Your task to perform on an android device: turn off data saver in the chrome app Image 0: 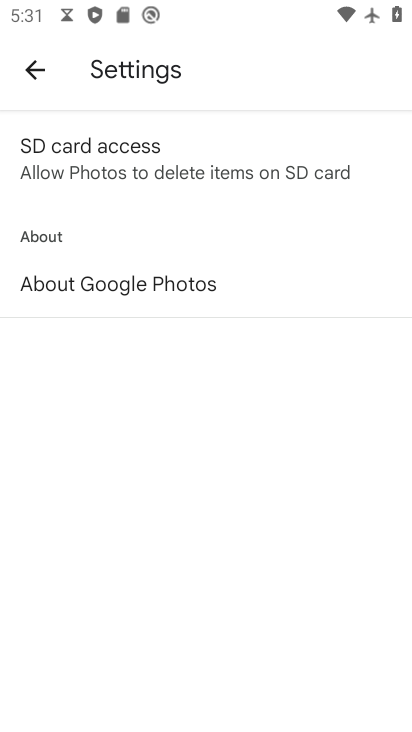
Step 0: press home button
Your task to perform on an android device: turn off data saver in the chrome app Image 1: 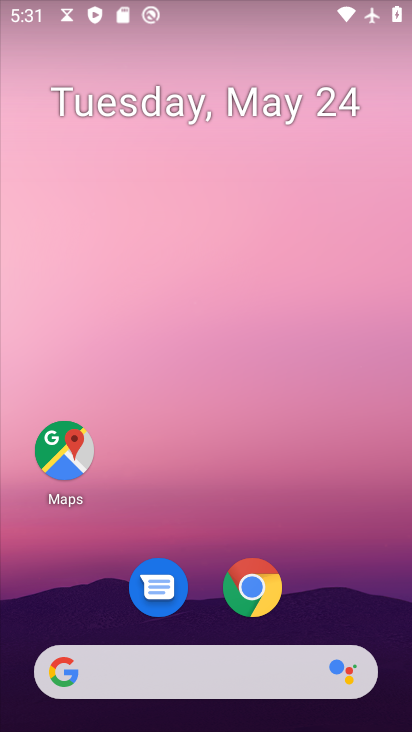
Step 1: click (272, 595)
Your task to perform on an android device: turn off data saver in the chrome app Image 2: 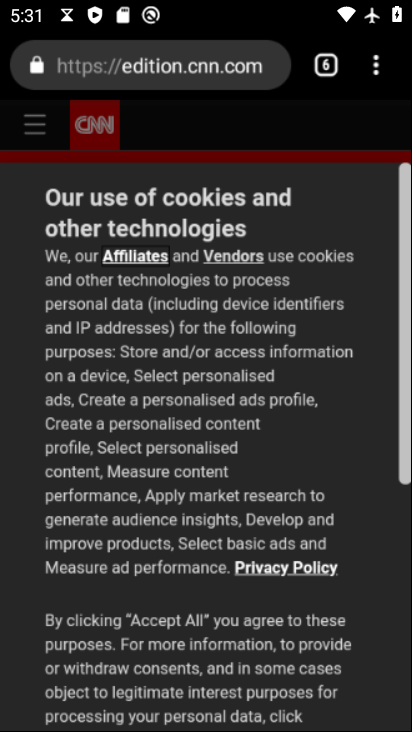
Step 2: click (382, 77)
Your task to perform on an android device: turn off data saver in the chrome app Image 3: 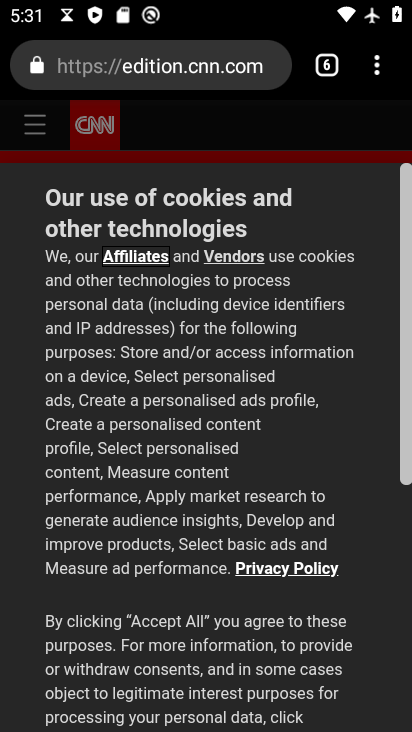
Step 3: click (369, 62)
Your task to perform on an android device: turn off data saver in the chrome app Image 4: 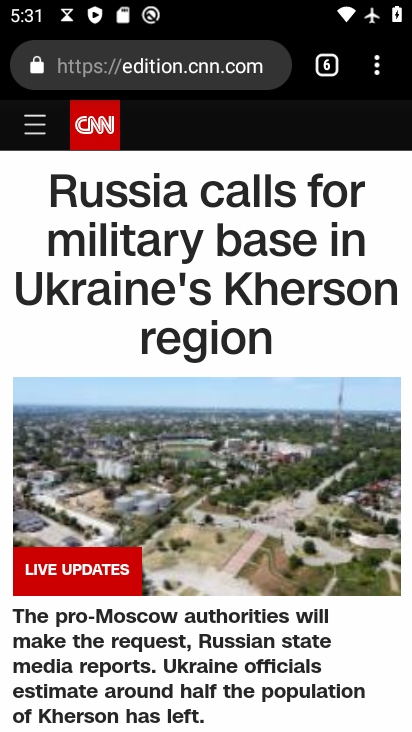
Step 4: click (368, 65)
Your task to perform on an android device: turn off data saver in the chrome app Image 5: 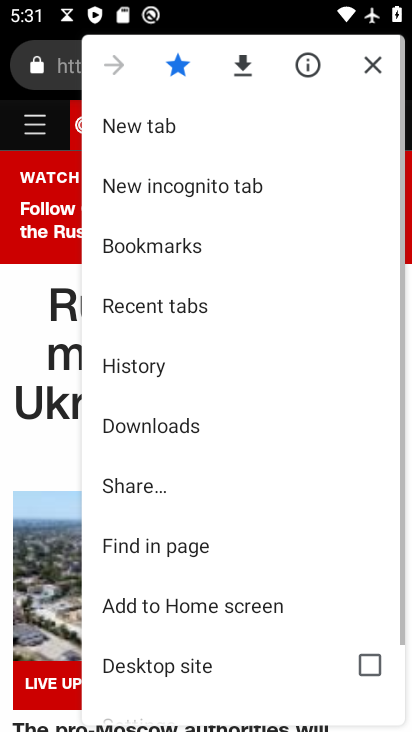
Step 5: drag from (253, 595) to (267, 85)
Your task to perform on an android device: turn off data saver in the chrome app Image 6: 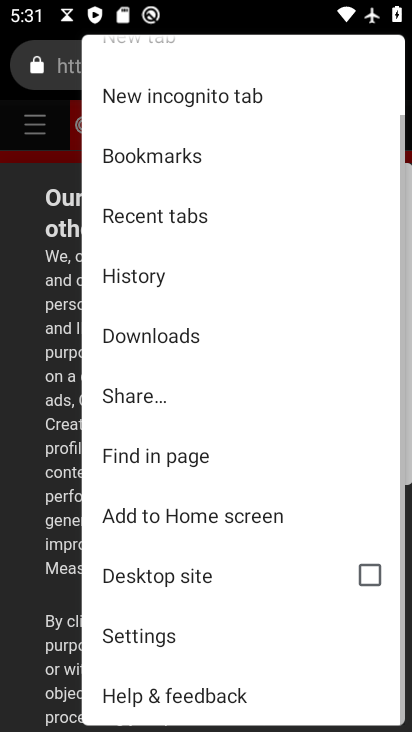
Step 6: click (214, 627)
Your task to perform on an android device: turn off data saver in the chrome app Image 7: 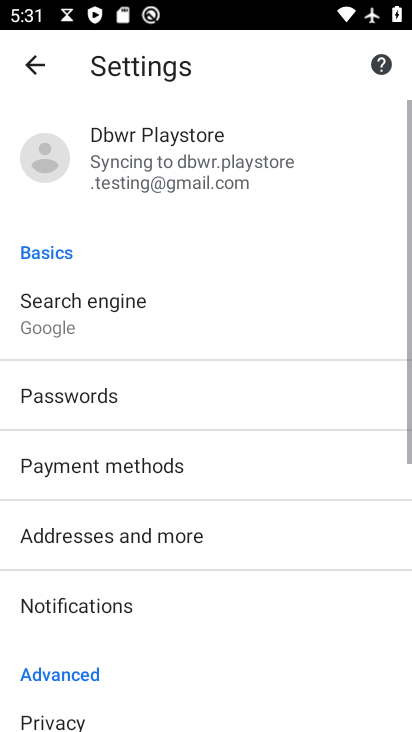
Step 7: drag from (184, 653) to (210, 113)
Your task to perform on an android device: turn off data saver in the chrome app Image 8: 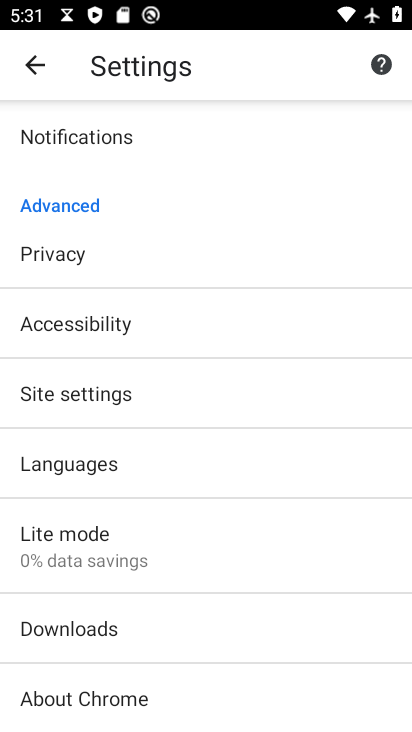
Step 8: click (180, 528)
Your task to perform on an android device: turn off data saver in the chrome app Image 9: 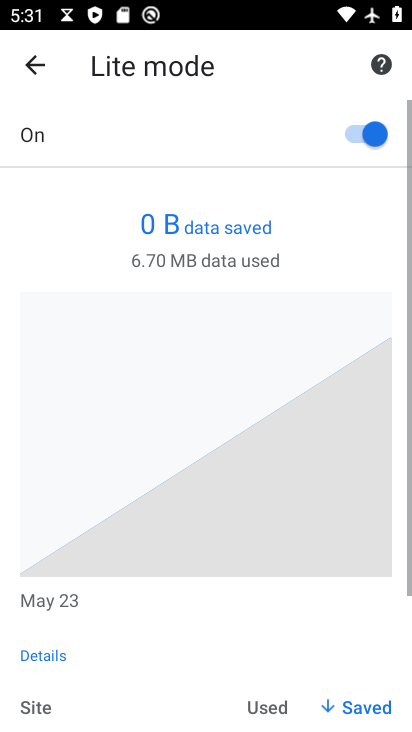
Step 9: click (362, 130)
Your task to perform on an android device: turn off data saver in the chrome app Image 10: 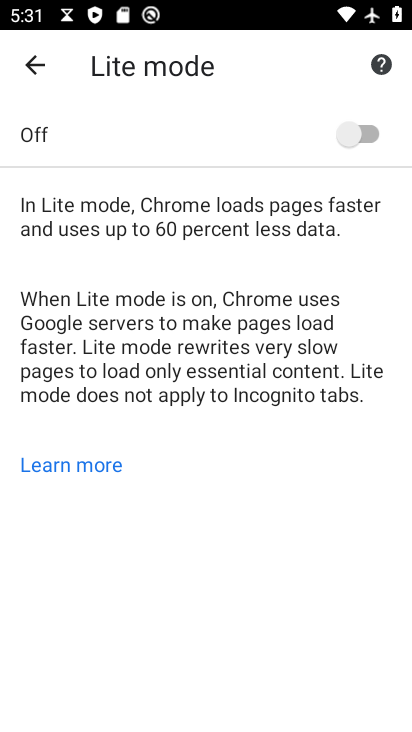
Step 10: task complete